Your task to perform on an android device: Go to accessibility settings Image 0: 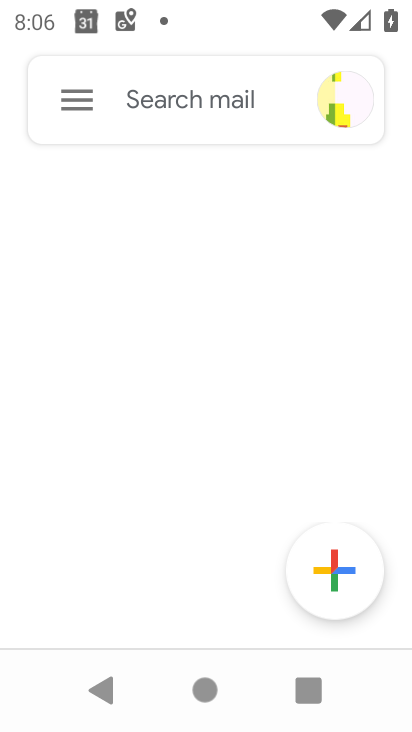
Step 0: press home button
Your task to perform on an android device: Go to accessibility settings Image 1: 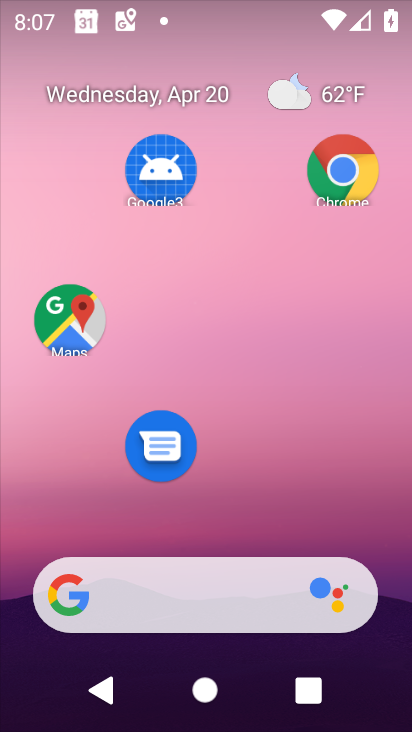
Step 1: drag from (266, 505) to (231, 57)
Your task to perform on an android device: Go to accessibility settings Image 2: 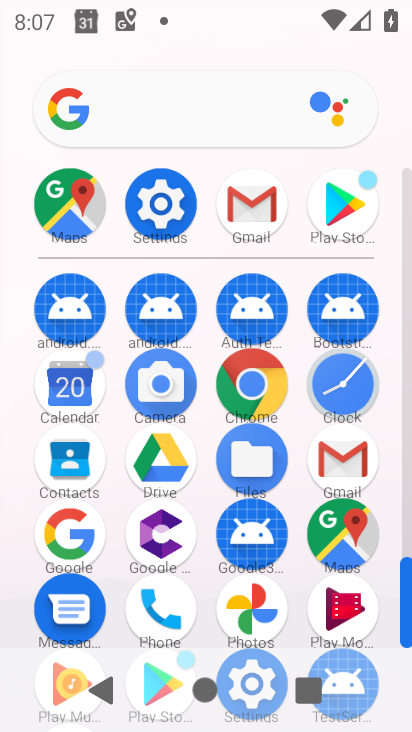
Step 2: click (161, 203)
Your task to perform on an android device: Go to accessibility settings Image 3: 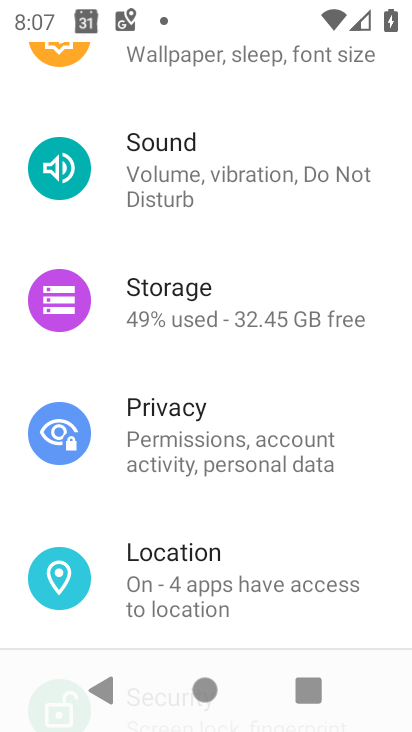
Step 3: drag from (219, 239) to (249, 580)
Your task to perform on an android device: Go to accessibility settings Image 4: 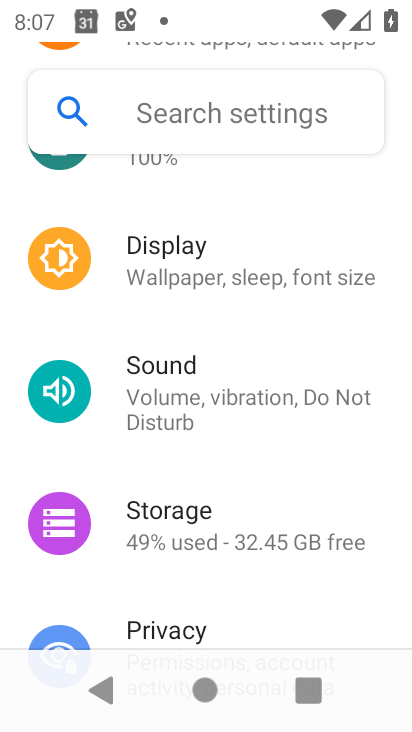
Step 4: drag from (207, 326) to (138, 633)
Your task to perform on an android device: Go to accessibility settings Image 5: 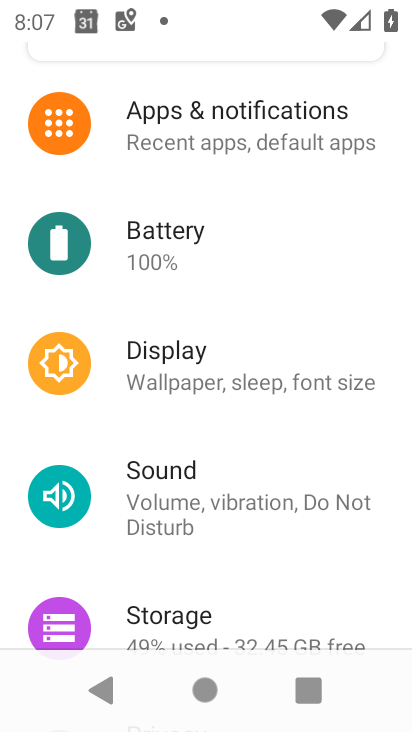
Step 5: drag from (227, 556) to (215, 16)
Your task to perform on an android device: Go to accessibility settings Image 6: 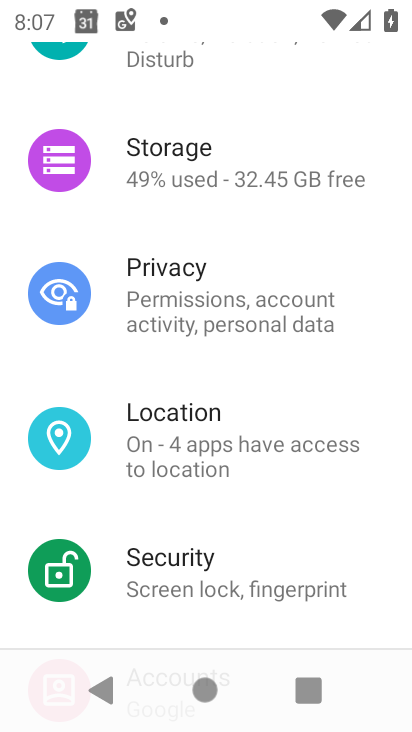
Step 6: drag from (237, 508) to (231, 158)
Your task to perform on an android device: Go to accessibility settings Image 7: 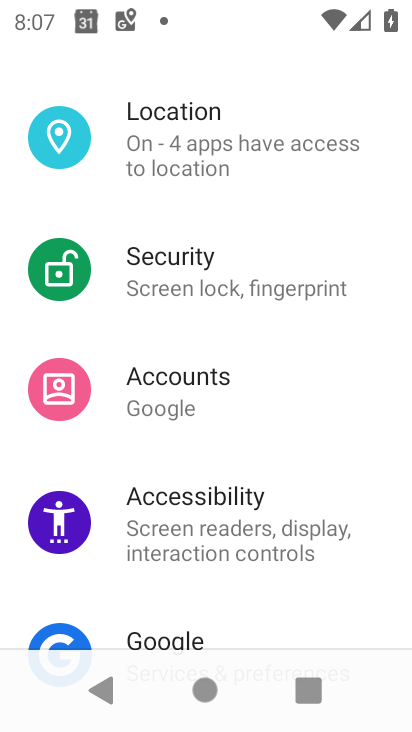
Step 7: click (201, 505)
Your task to perform on an android device: Go to accessibility settings Image 8: 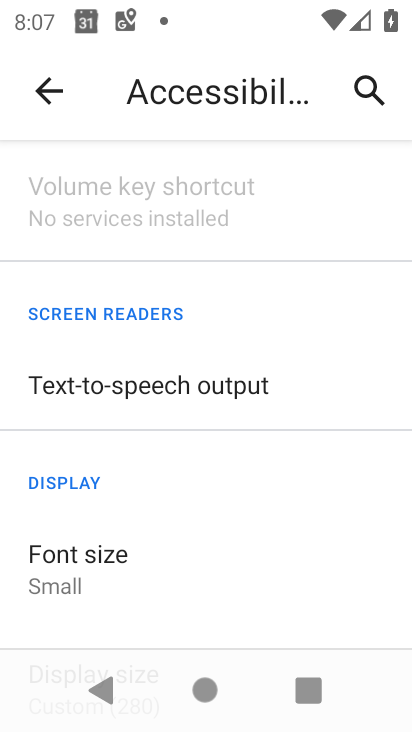
Step 8: task complete